Your task to perform on an android device: Find coffee shops on Maps Image 0: 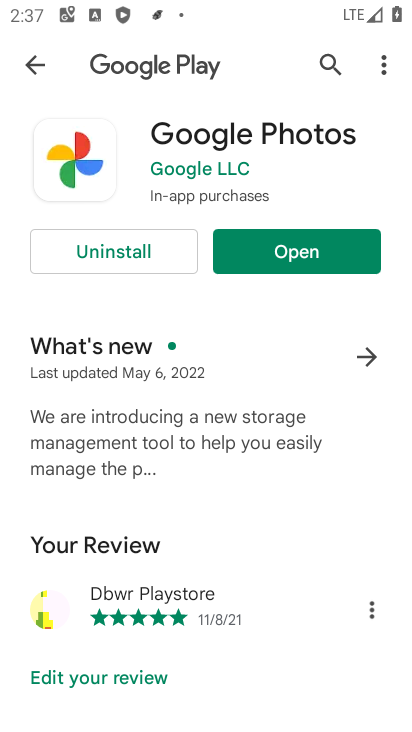
Step 0: drag from (231, 640) to (258, 156)
Your task to perform on an android device: Find coffee shops on Maps Image 1: 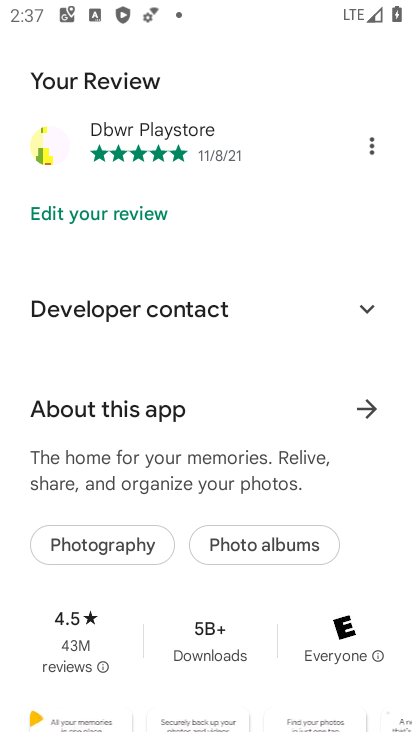
Step 1: press home button
Your task to perform on an android device: Find coffee shops on Maps Image 2: 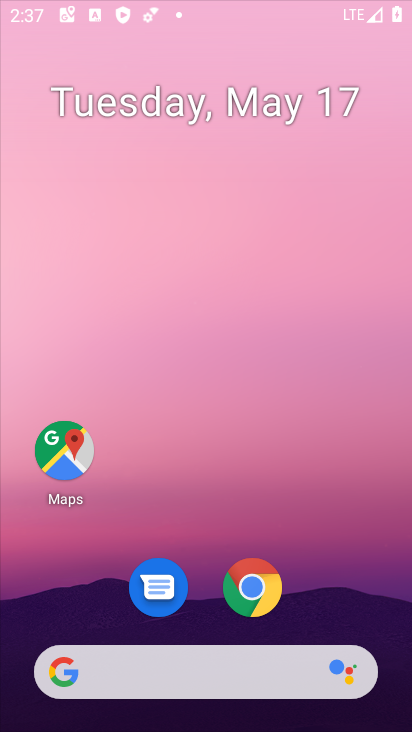
Step 2: drag from (229, 612) to (162, 21)
Your task to perform on an android device: Find coffee shops on Maps Image 3: 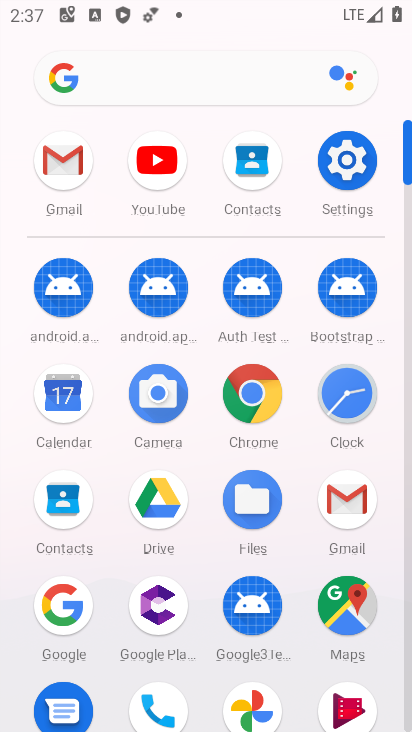
Step 3: click (336, 589)
Your task to perform on an android device: Find coffee shops on Maps Image 4: 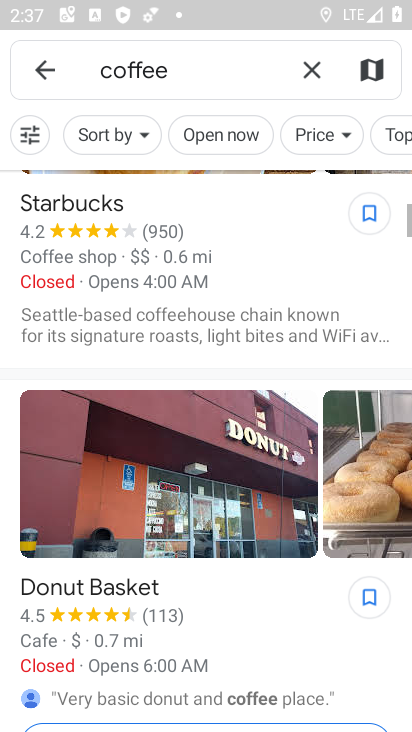
Step 4: task complete